Your task to perform on an android device: Open settings Image 0: 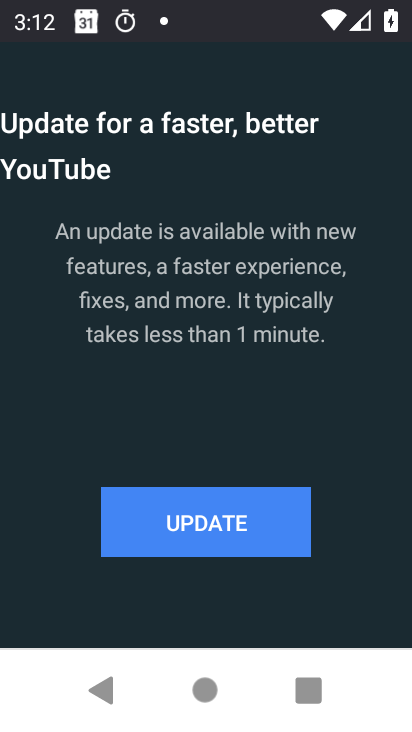
Step 0: press home button
Your task to perform on an android device: Open settings Image 1: 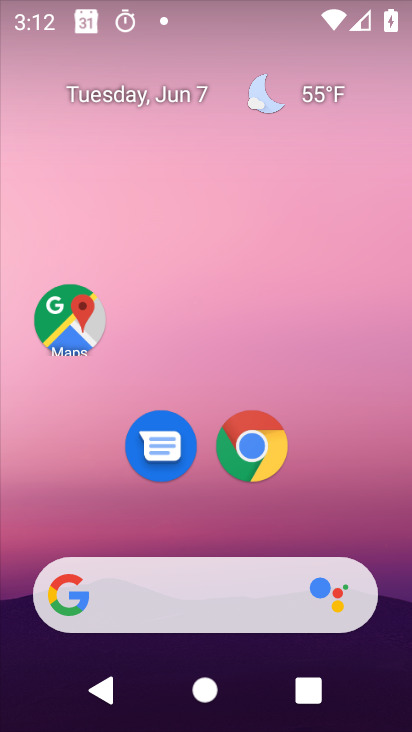
Step 1: drag from (196, 552) to (202, 164)
Your task to perform on an android device: Open settings Image 2: 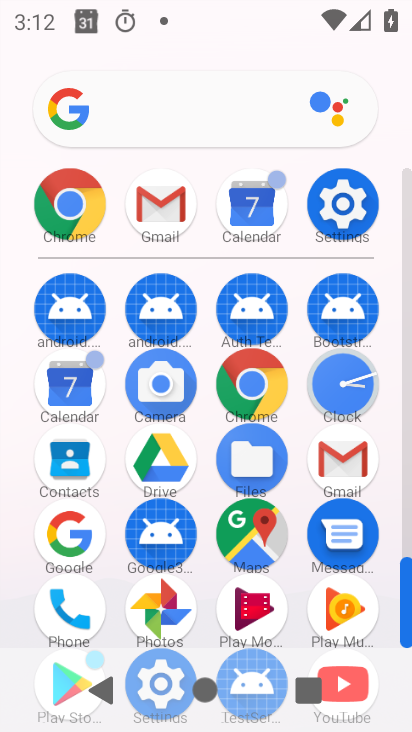
Step 2: click (339, 218)
Your task to perform on an android device: Open settings Image 3: 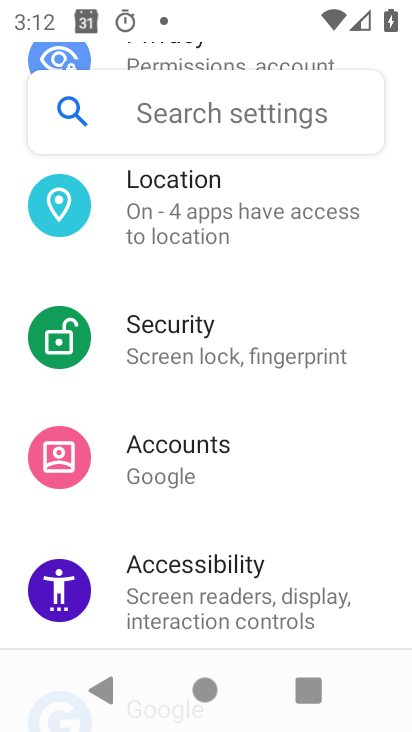
Step 3: task complete